Your task to perform on an android device: turn off picture-in-picture Image 0: 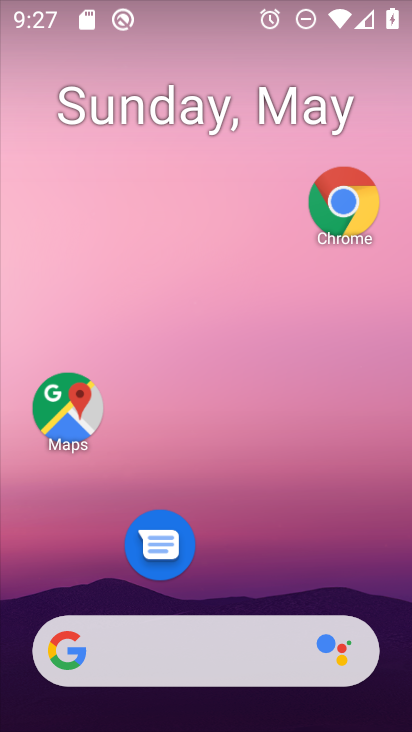
Step 0: click (351, 193)
Your task to perform on an android device: turn off picture-in-picture Image 1: 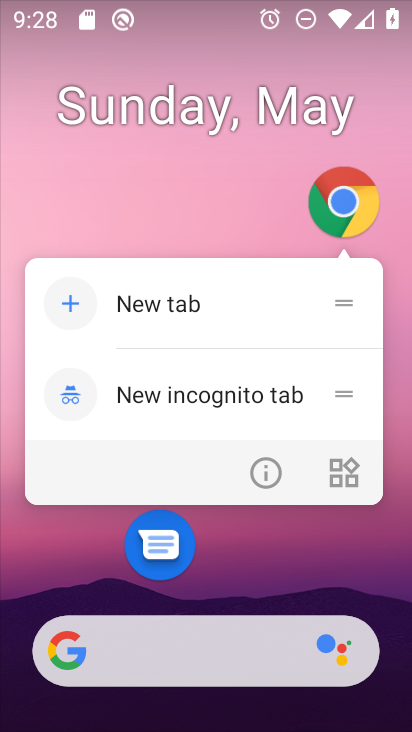
Step 1: click (262, 471)
Your task to perform on an android device: turn off picture-in-picture Image 2: 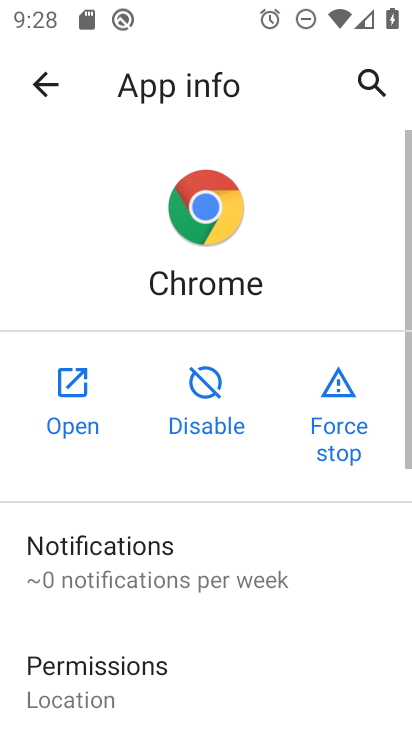
Step 2: drag from (224, 597) to (246, 100)
Your task to perform on an android device: turn off picture-in-picture Image 3: 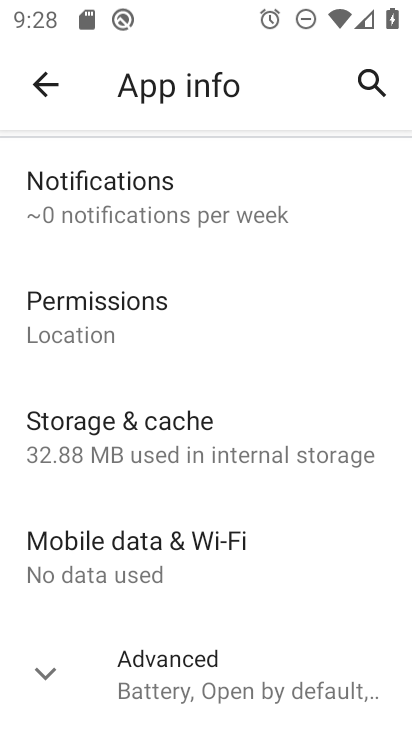
Step 3: click (144, 675)
Your task to perform on an android device: turn off picture-in-picture Image 4: 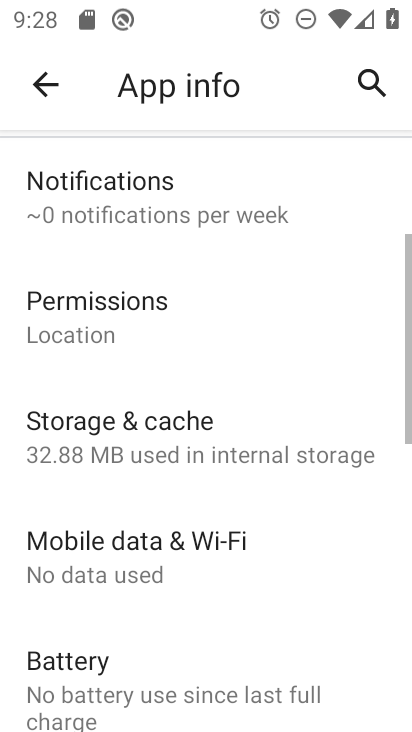
Step 4: drag from (144, 673) to (231, 253)
Your task to perform on an android device: turn off picture-in-picture Image 5: 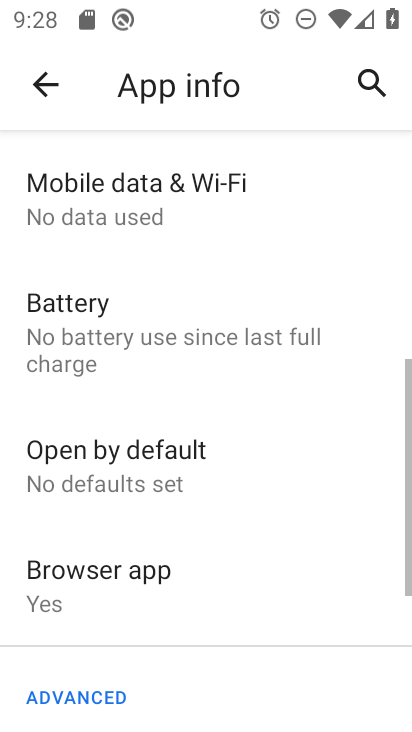
Step 5: drag from (196, 620) to (257, 311)
Your task to perform on an android device: turn off picture-in-picture Image 6: 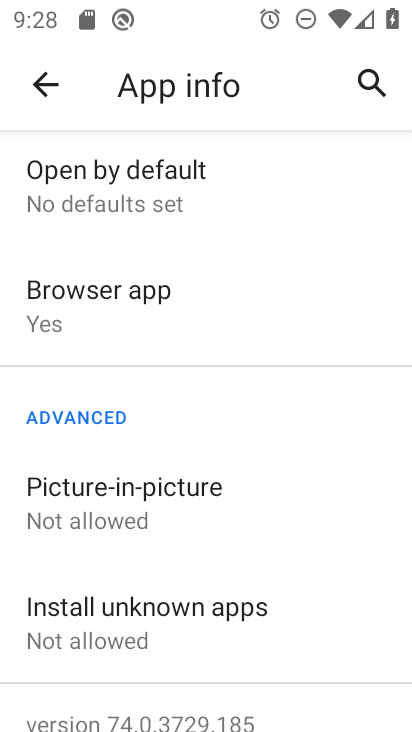
Step 6: click (219, 524)
Your task to perform on an android device: turn off picture-in-picture Image 7: 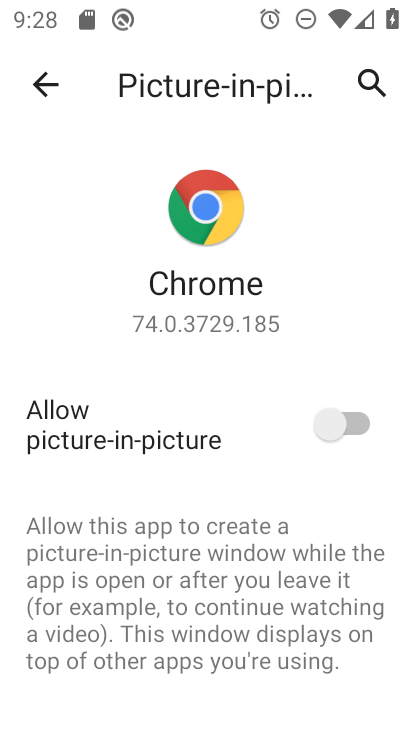
Step 7: task complete